Your task to perform on an android device: open chrome privacy settings Image 0: 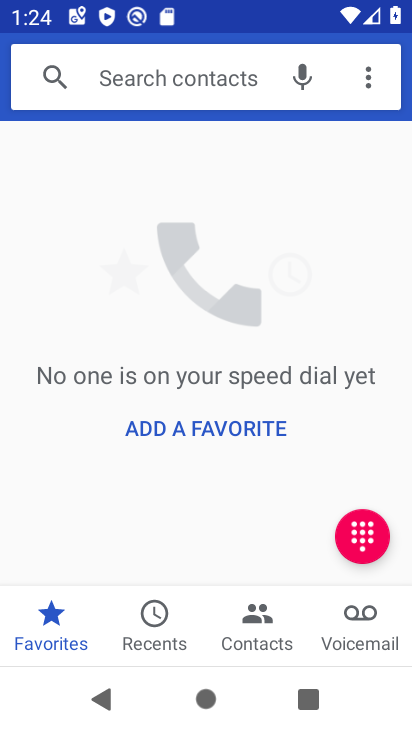
Step 0: press home button
Your task to perform on an android device: open chrome privacy settings Image 1: 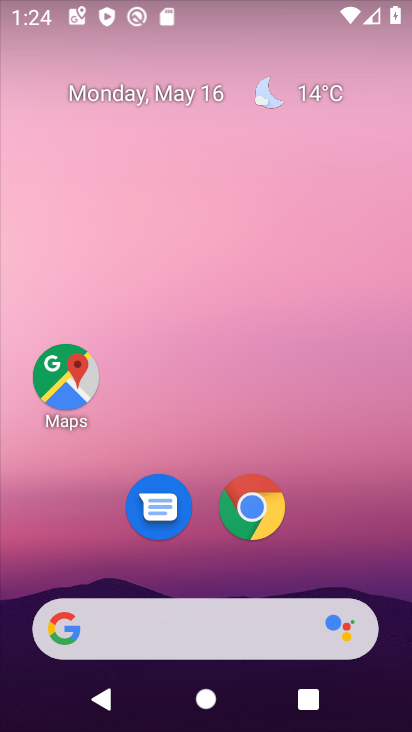
Step 1: drag from (190, 582) to (223, 196)
Your task to perform on an android device: open chrome privacy settings Image 2: 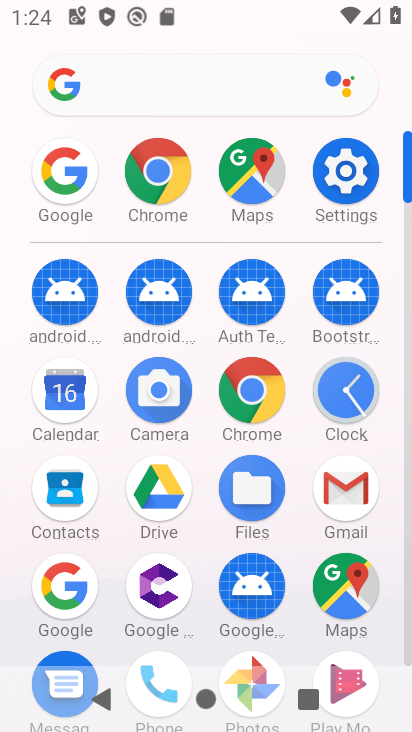
Step 2: click (247, 397)
Your task to perform on an android device: open chrome privacy settings Image 3: 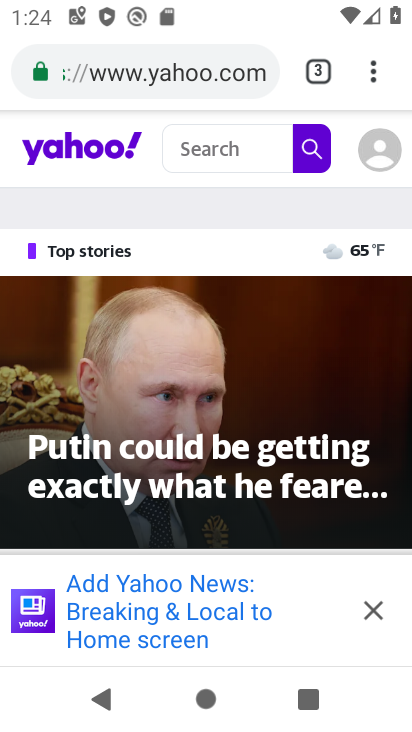
Step 3: click (386, 89)
Your task to perform on an android device: open chrome privacy settings Image 4: 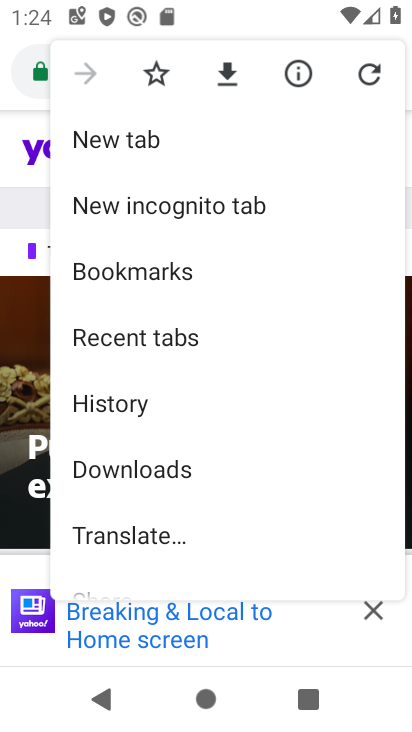
Step 4: drag from (222, 499) to (233, 197)
Your task to perform on an android device: open chrome privacy settings Image 5: 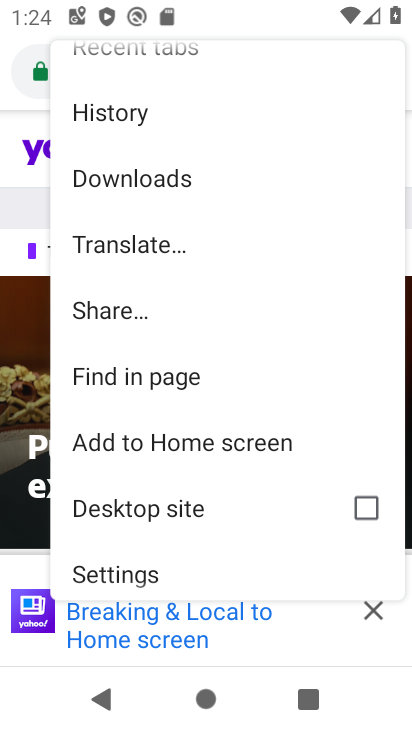
Step 5: click (188, 576)
Your task to perform on an android device: open chrome privacy settings Image 6: 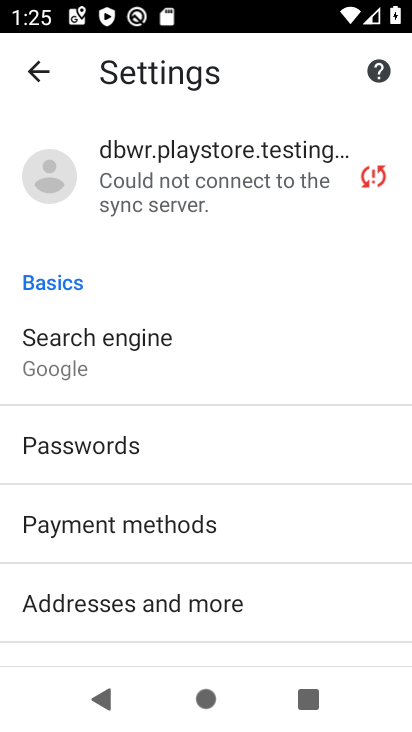
Step 6: drag from (178, 566) to (170, 182)
Your task to perform on an android device: open chrome privacy settings Image 7: 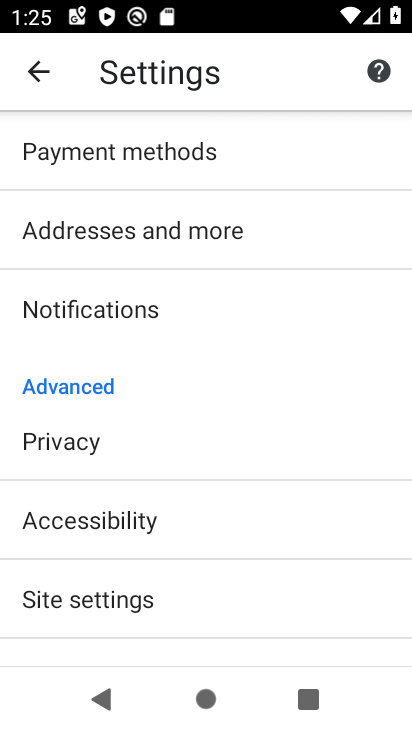
Step 7: click (127, 456)
Your task to perform on an android device: open chrome privacy settings Image 8: 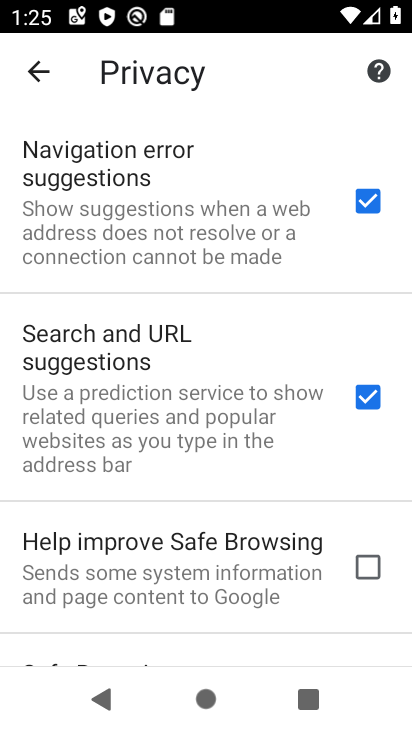
Step 8: task complete